Your task to perform on an android device: Go to Android settings Image 0: 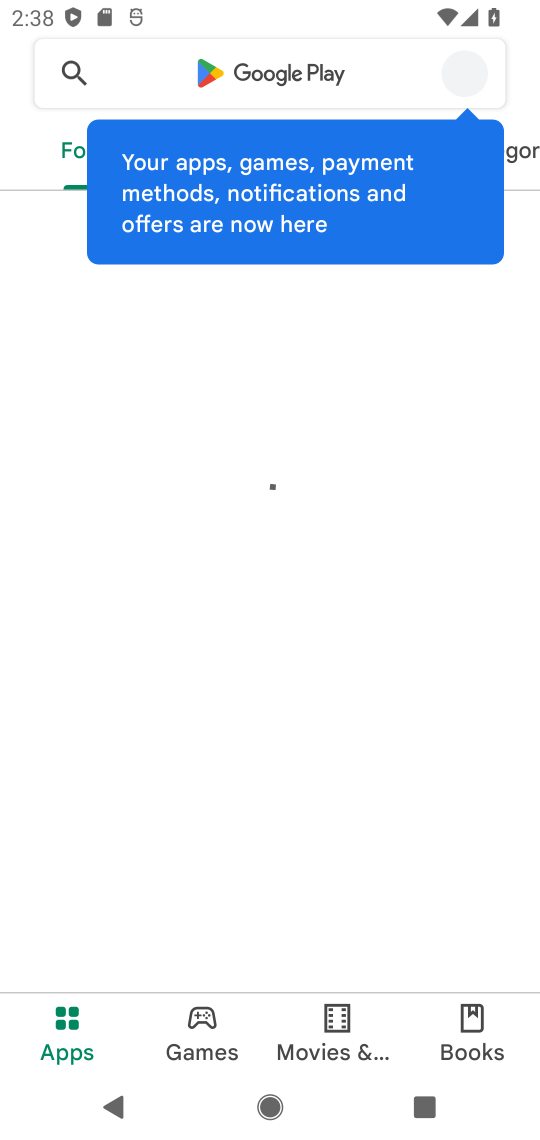
Step 0: press home button
Your task to perform on an android device: Go to Android settings Image 1: 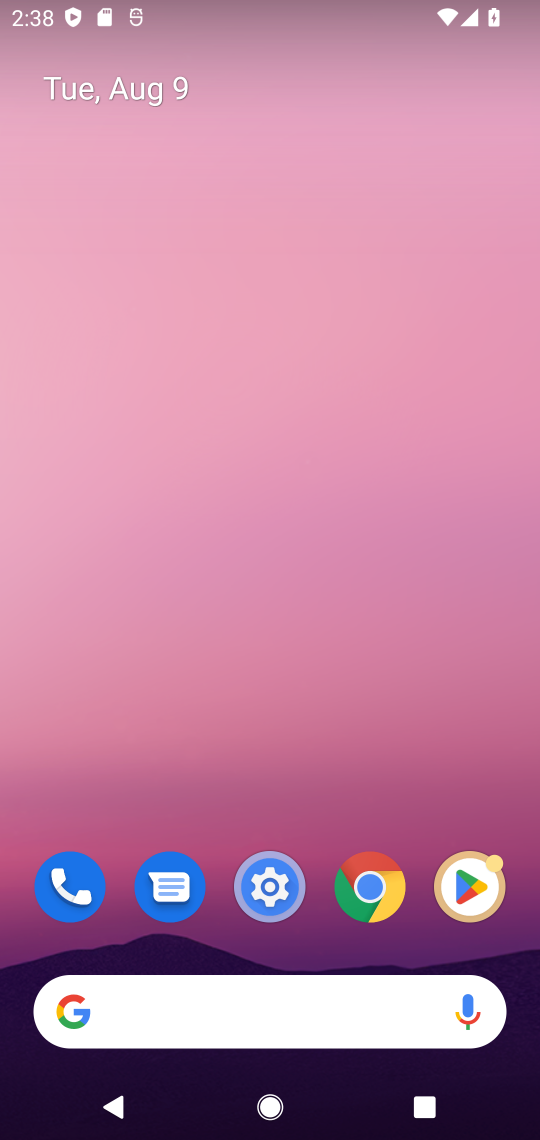
Step 1: click (269, 883)
Your task to perform on an android device: Go to Android settings Image 2: 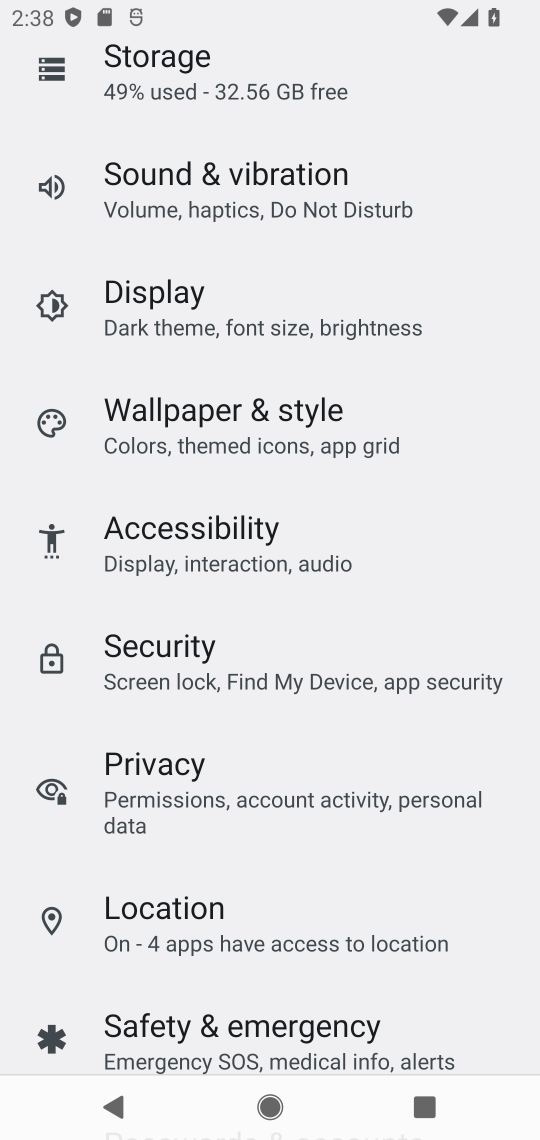
Step 2: drag from (284, 949) to (351, 298)
Your task to perform on an android device: Go to Android settings Image 3: 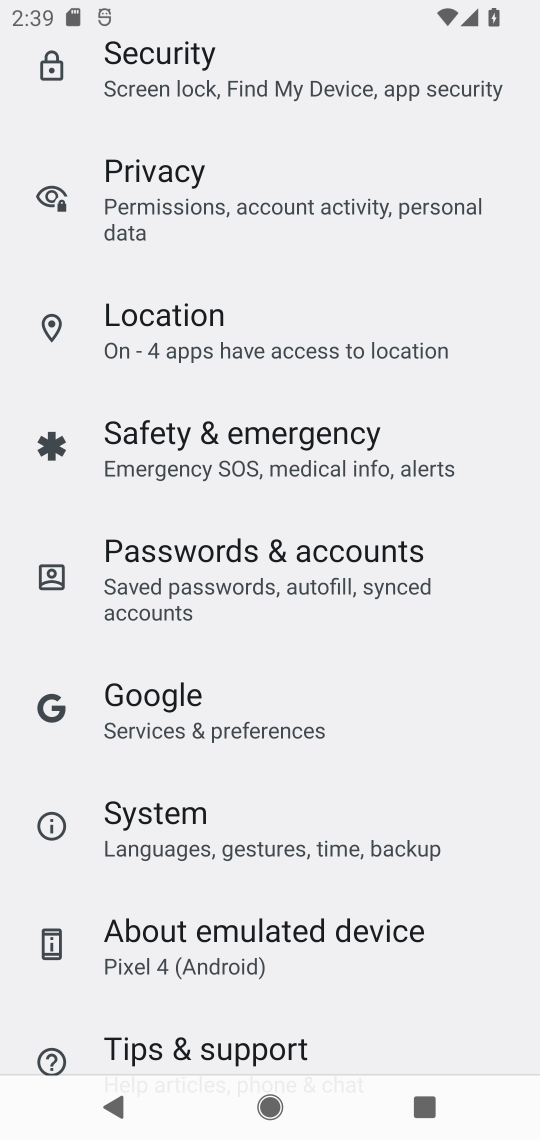
Step 3: drag from (217, 927) to (322, 208)
Your task to perform on an android device: Go to Android settings Image 4: 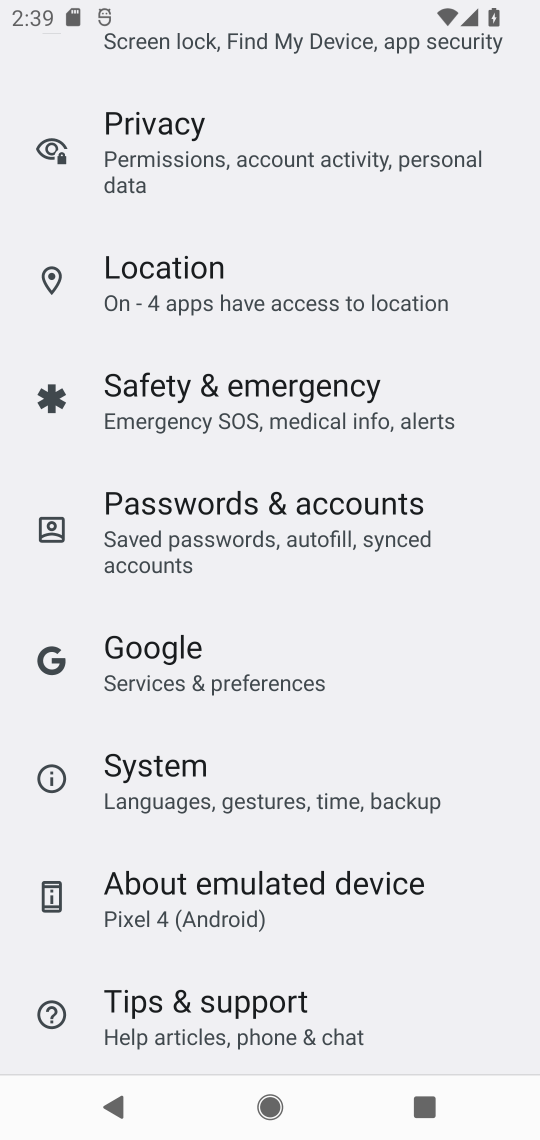
Step 4: click (192, 893)
Your task to perform on an android device: Go to Android settings Image 5: 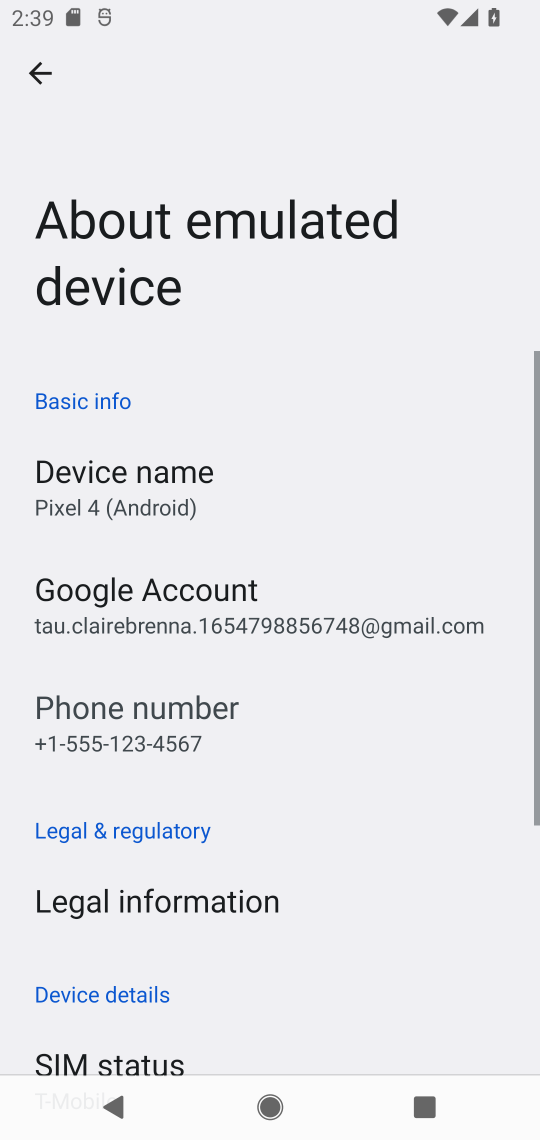
Step 5: drag from (204, 847) to (286, 199)
Your task to perform on an android device: Go to Android settings Image 6: 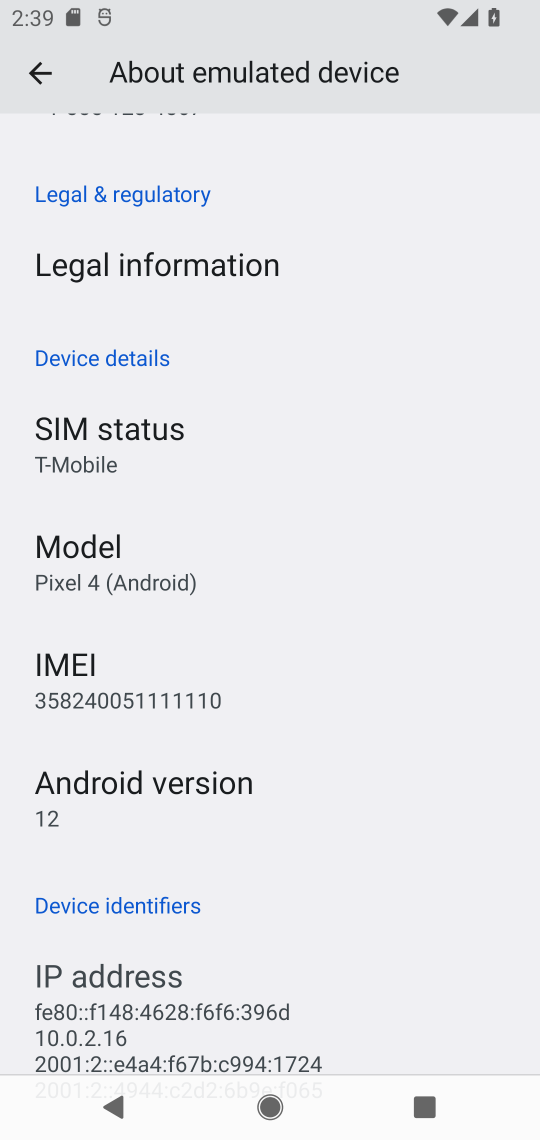
Step 6: click (176, 780)
Your task to perform on an android device: Go to Android settings Image 7: 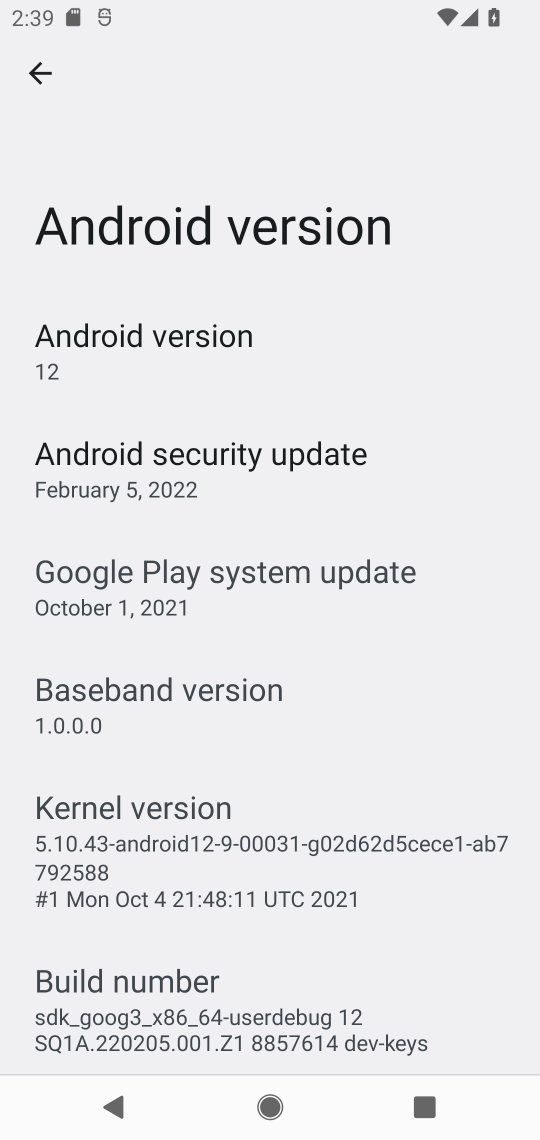
Step 7: task complete